Your task to perform on an android device: Check the weather Image 0: 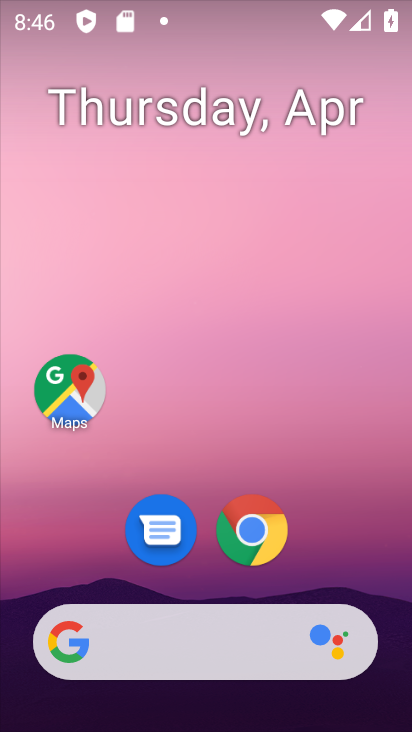
Step 0: click (190, 622)
Your task to perform on an android device: Check the weather Image 1: 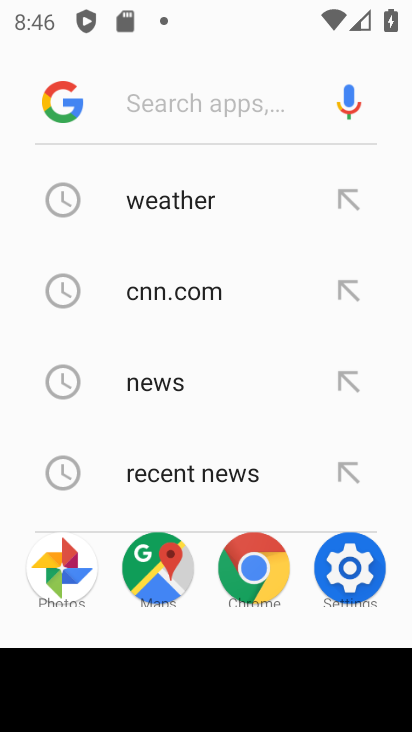
Step 1: click (140, 197)
Your task to perform on an android device: Check the weather Image 2: 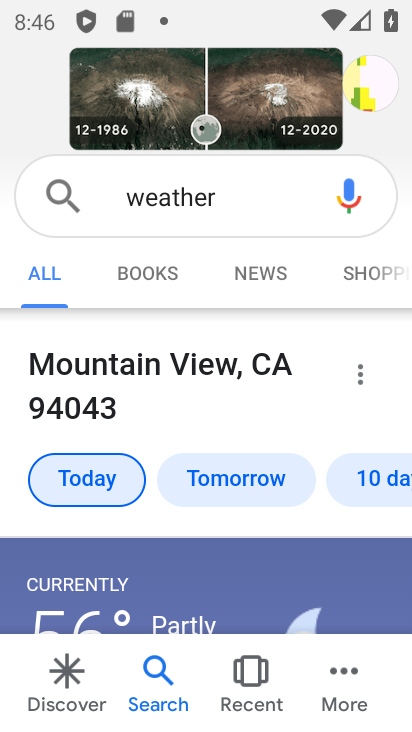
Step 2: task complete